Your task to perform on an android device: Search for Italian restaurants on Maps Image 0: 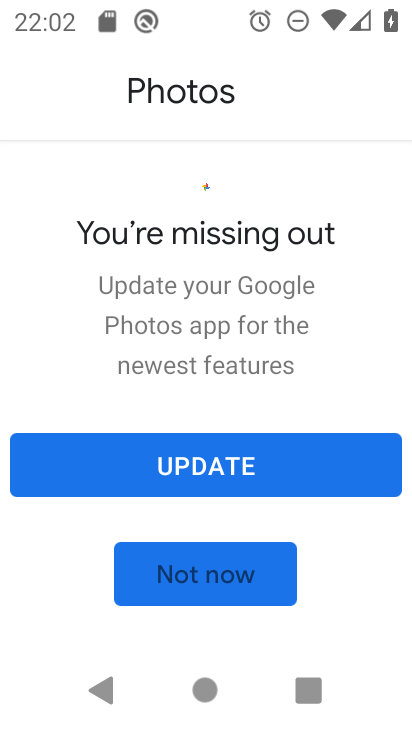
Step 0: press home button
Your task to perform on an android device: Search for Italian restaurants on Maps Image 1: 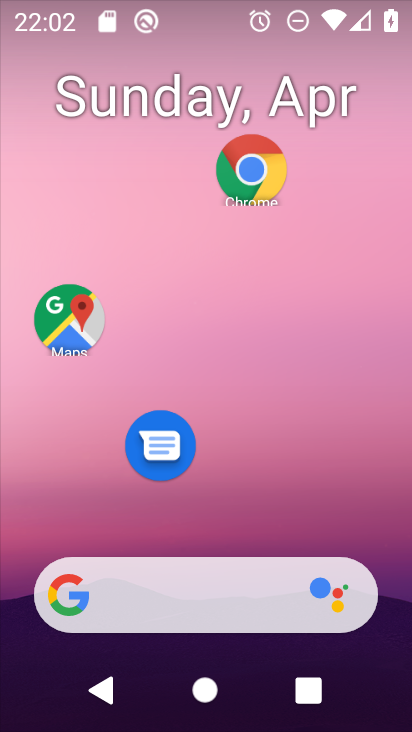
Step 1: click (69, 325)
Your task to perform on an android device: Search for Italian restaurants on Maps Image 2: 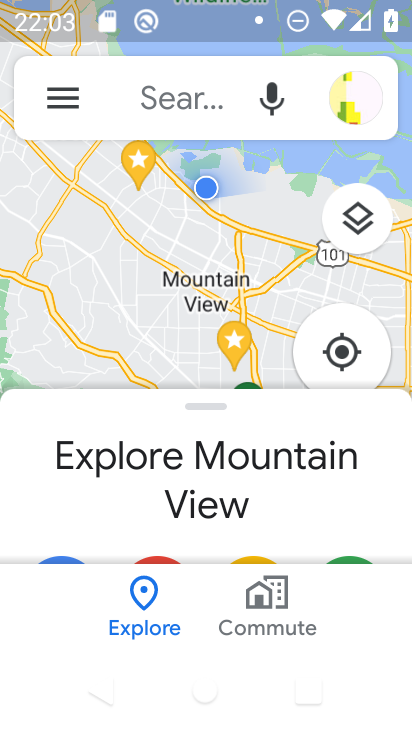
Step 2: click (199, 108)
Your task to perform on an android device: Search for Italian restaurants on Maps Image 3: 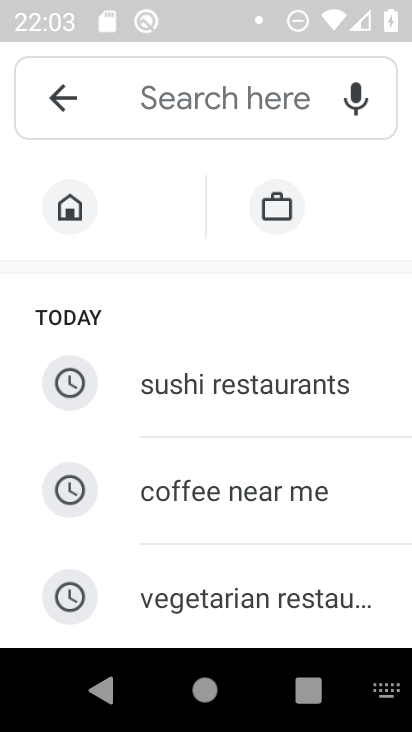
Step 3: drag from (301, 474) to (283, 198)
Your task to perform on an android device: Search for Italian restaurants on Maps Image 4: 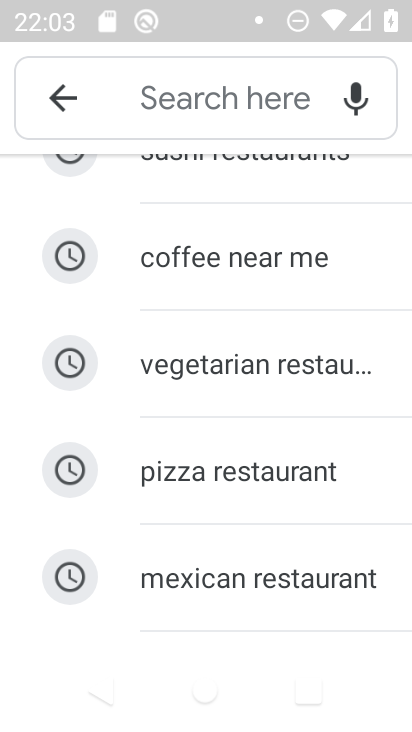
Step 4: drag from (295, 524) to (303, 244)
Your task to perform on an android device: Search for Italian restaurants on Maps Image 5: 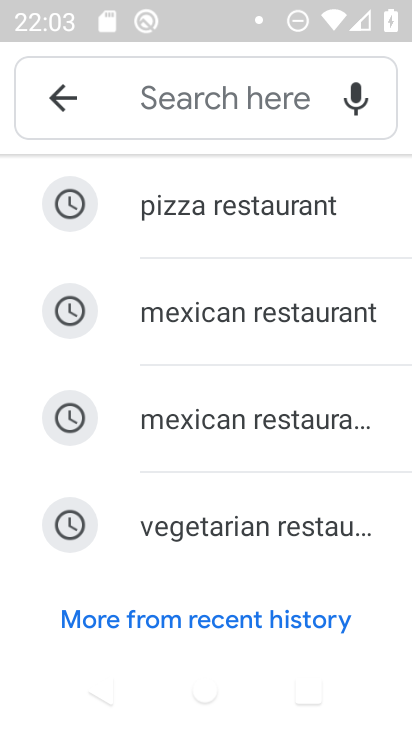
Step 5: click (231, 97)
Your task to perform on an android device: Search for Italian restaurants on Maps Image 6: 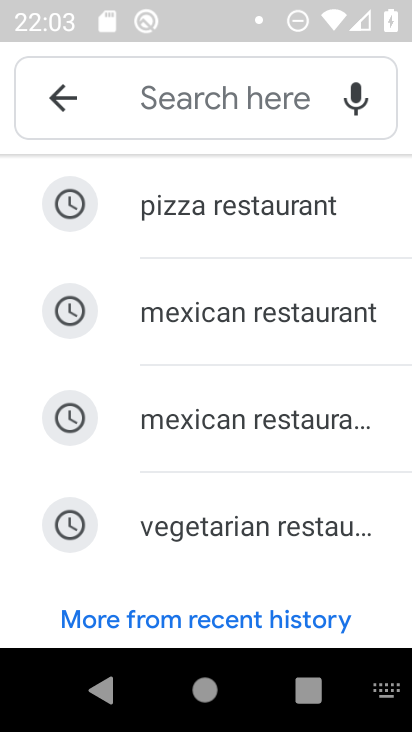
Step 6: type "italian restaurents"
Your task to perform on an android device: Search for Italian restaurants on Maps Image 7: 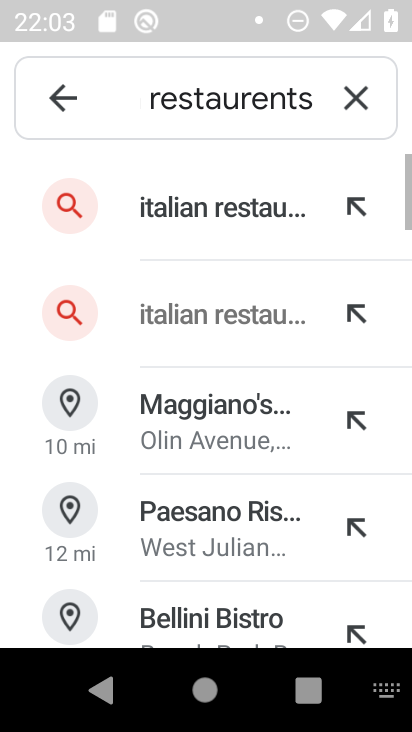
Step 7: click (211, 217)
Your task to perform on an android device: Search for Italian restaurants on Maps Image 8: 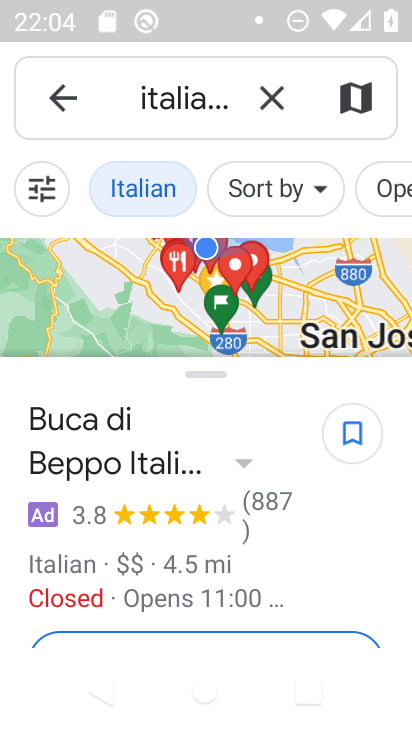
Step 8: task complete